Your task to perform on an android device: Is it going to rain today? Image 0: 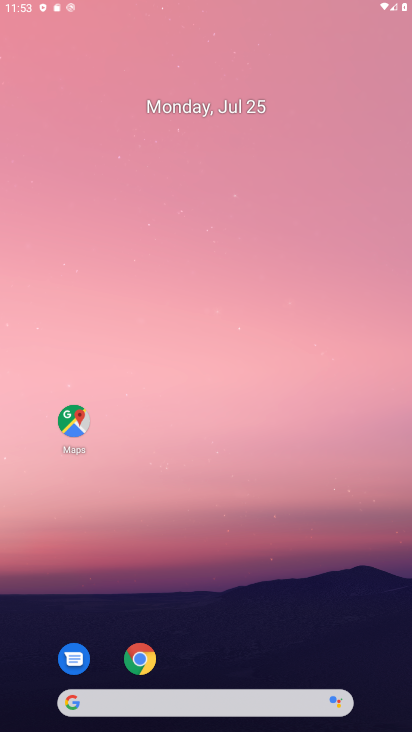
Step 0: drag from (345, 592) to (247, 58)
Your task to perform on an android device: Is it going to rain today? Image 1: 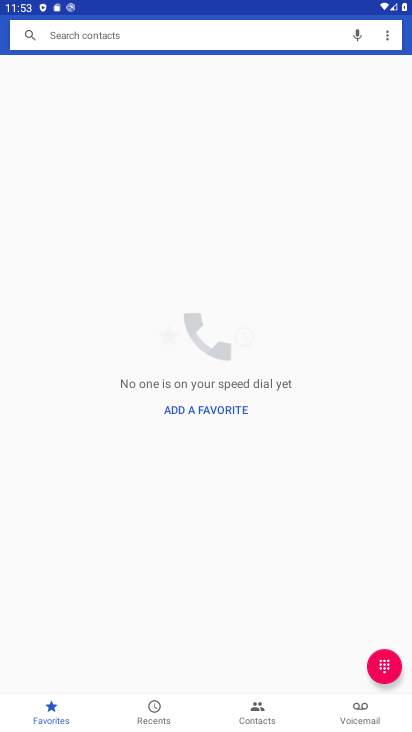
Step 1: press home button
Your task to perform on an android device: Is it going to rain today? Image 2: 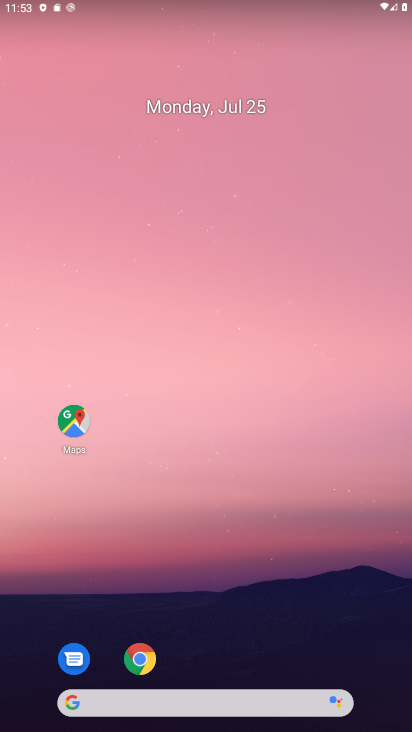
Step 2: click (140, 652)
Your task to perform on an android device: Is it going to rain today? Image 3: 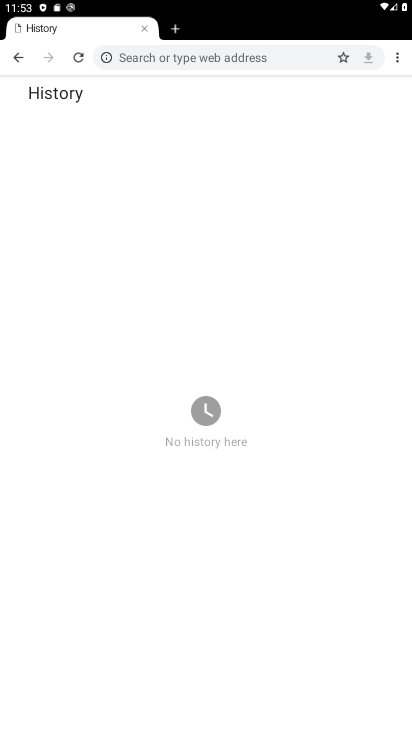
Step 3: click (189, 49)
Your task to perform on an android device: Is it going to rain today? Image 4: 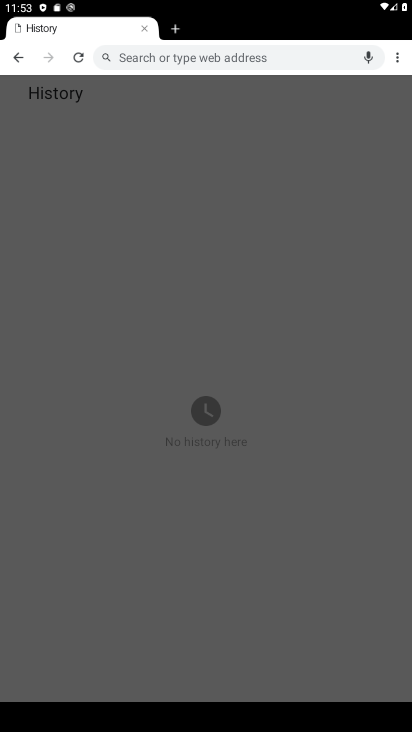
Step 4: type "Is it going to rain today?"
Your task to perform on an android device: Is it going to rain today? Image 5: 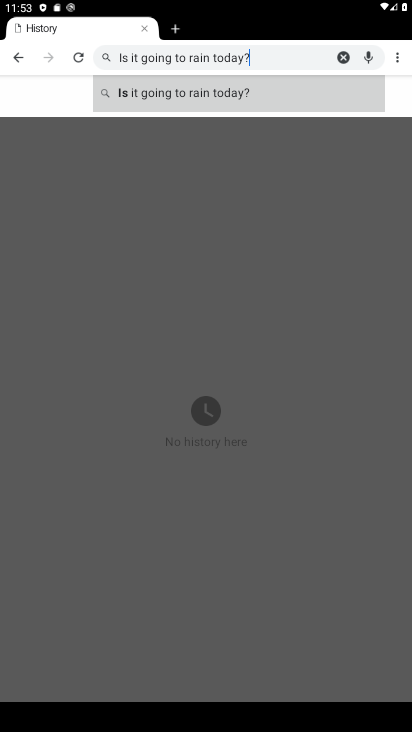
Step 5: type ""
Your task to perform on an android device: Is it going to rain today? Image 6: 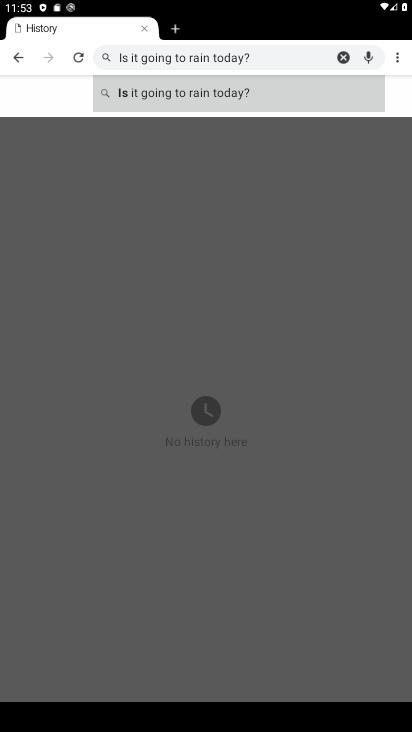
Step 6: click (218, 104)
Your task to perform on an android device: Is it going to rain today? Image 7: 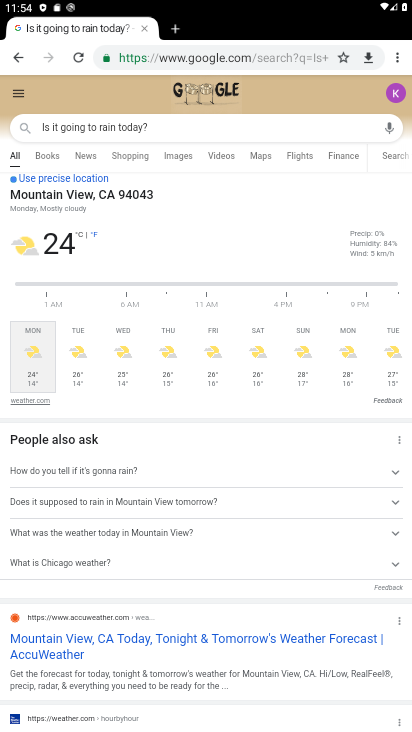
Step 7: task complete